Your task to perform on an android device: turn on wifi Image 0: 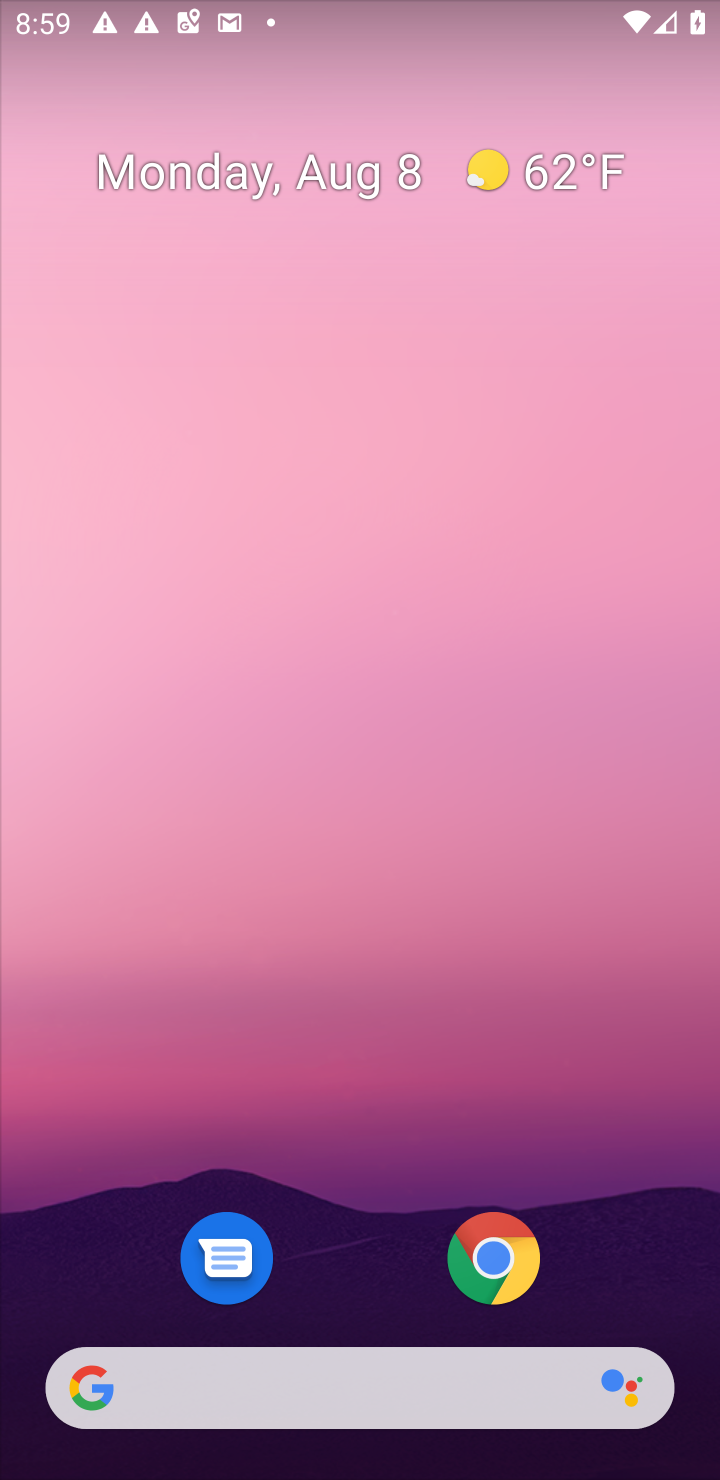
Step 0: drag from (377, 966) to (452, 2)
Your task to perform on an android device: turn on wifi Image 1: 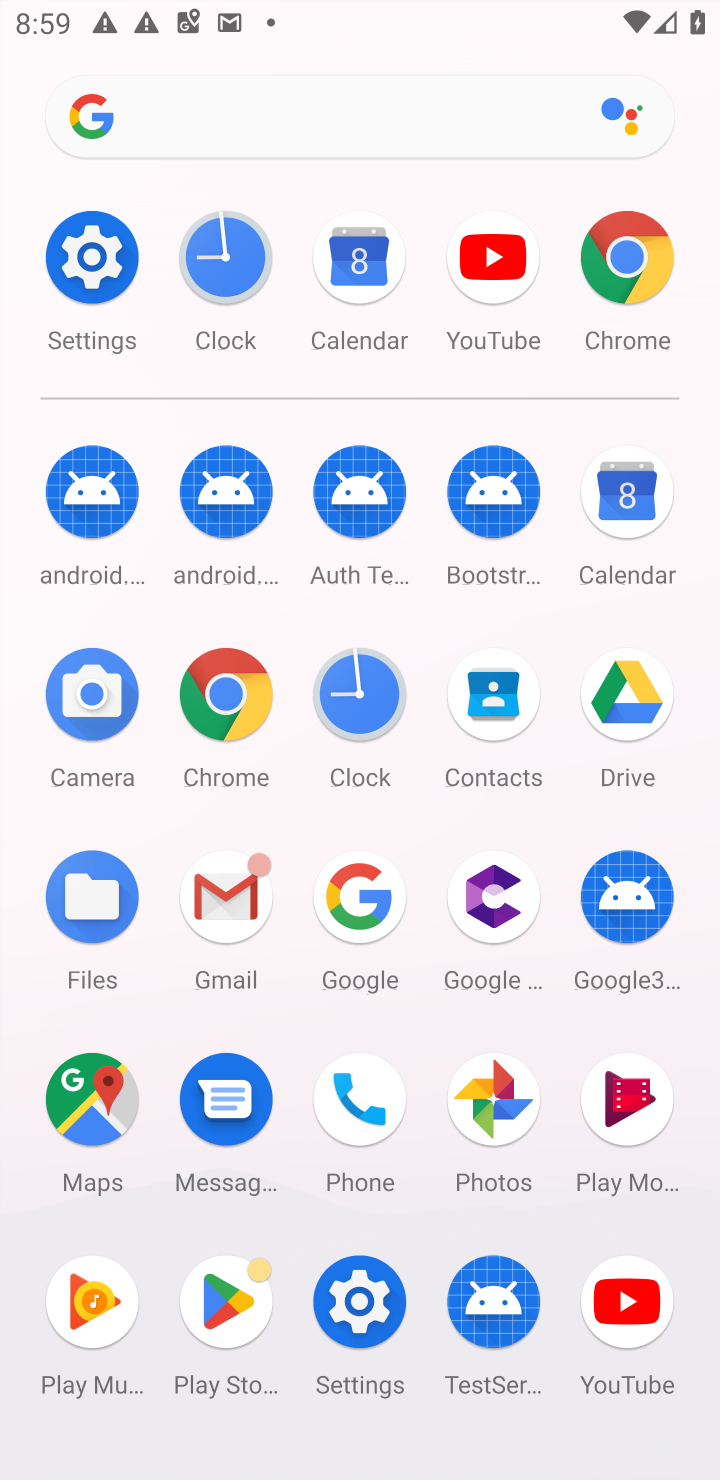
Step 1: click (88, 299)
Your task to perform on an android device: turn on wifi Image 2: 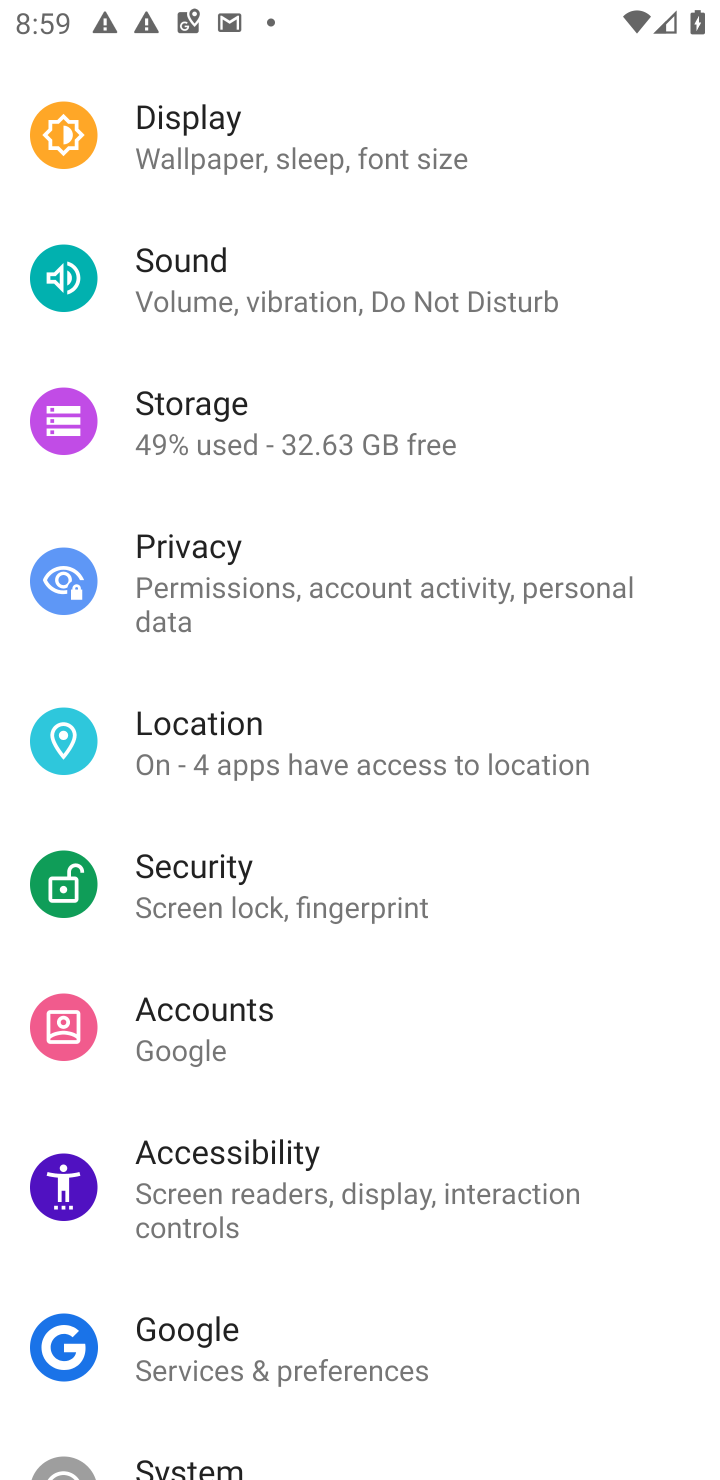
Step 2: task complete